Your task to perform on an android device: What's the weather going to be this weekend? Image 0: 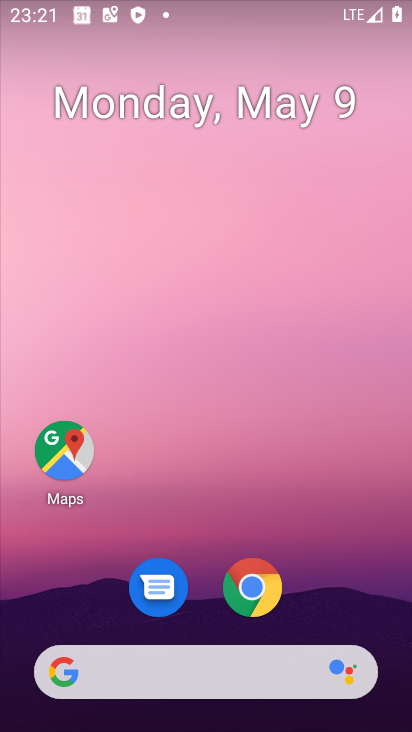
Step 0: click (147, 668)
Your task to perform on an android device: What's the weather going to be this weekend? Image 1: 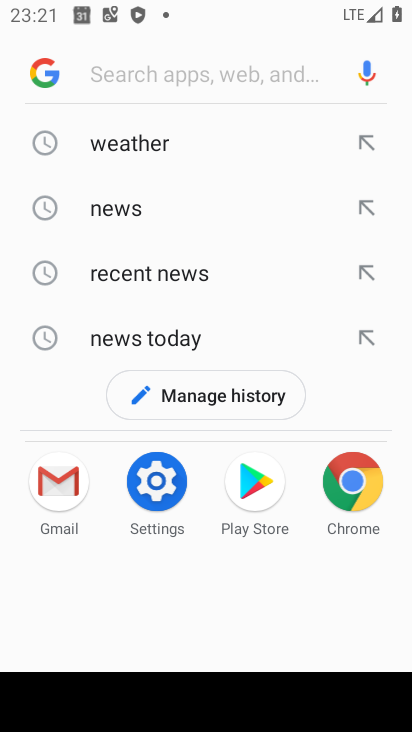
Step 1: click (175, 153)
Your task to perform on an android device: What's the weather going to be this weekend? Image 2: 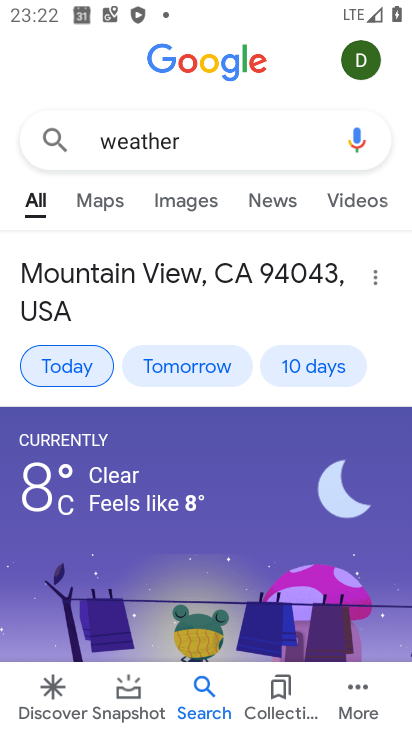
Step 2: task complete